Your task to perform on an android device: turn off priority inbox in the gmail app Image 0: 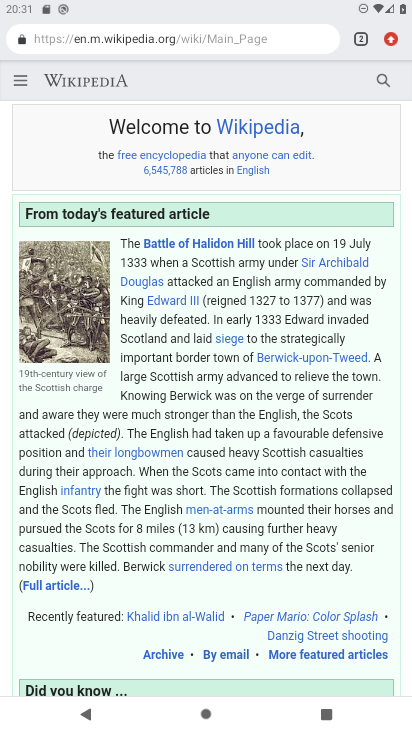
Step 0: press home button
Your task to perform on an android device: turn off priority inbox in the gmail app Image 1: 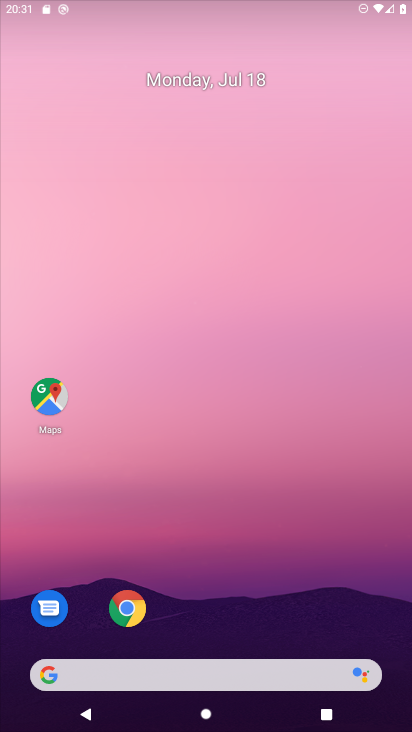
Step 1: drag from (205, 630) to (233, 127)
Your task to perform on an android device: turn off priority inbox in the gmail app Image 2: 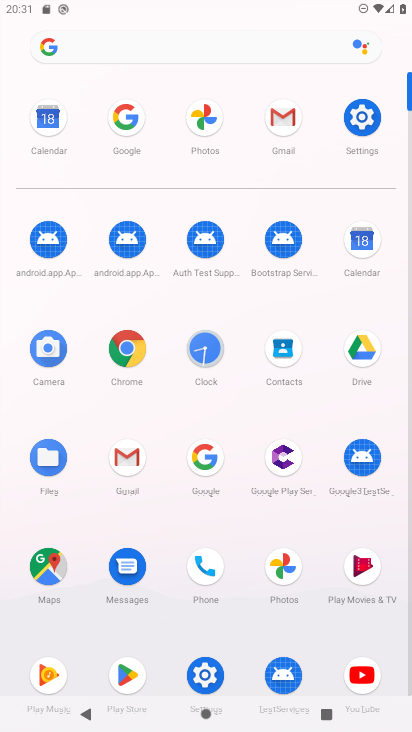
Step 2: click (127, 457)
Your task to perform on an android device: turn off priority inbox in the gmail app Image 3: 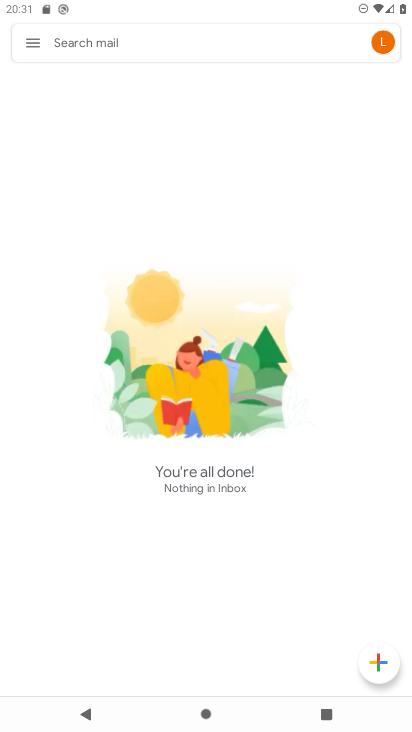
Step 3: click (34, 43)
Your task to perform on an android device: turn off priority inbox in the gmail app Image 4: 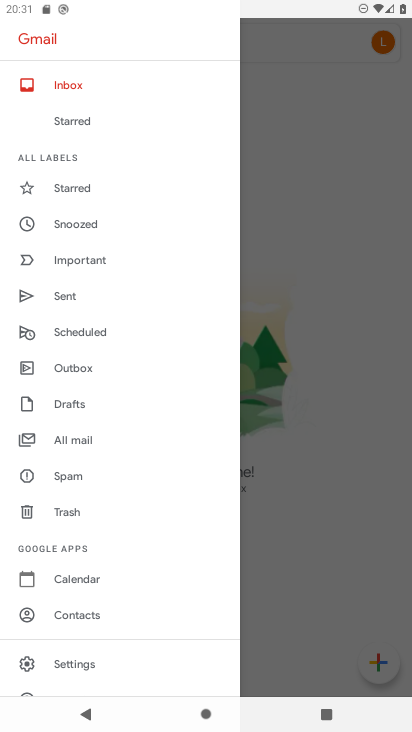
Step 4: click (72, 655)
Your task to perform on an android device: turn off priority inbox in the gmail app Image 5: 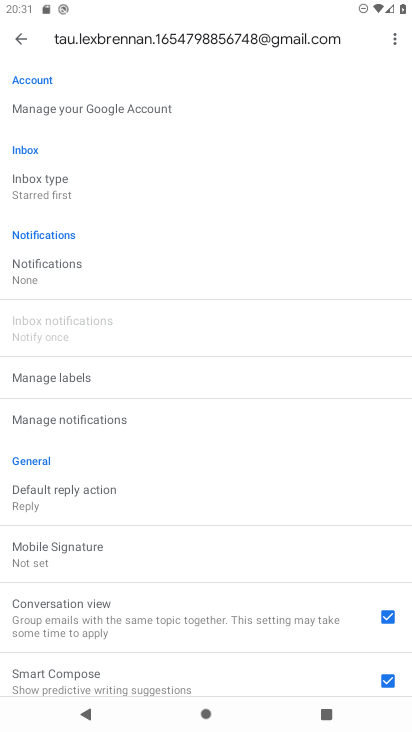
Step 5: drag from (202, 616) to (206, 723)
Your task to perform on an android device: turn off priority inbox in the gmail app Image 6: 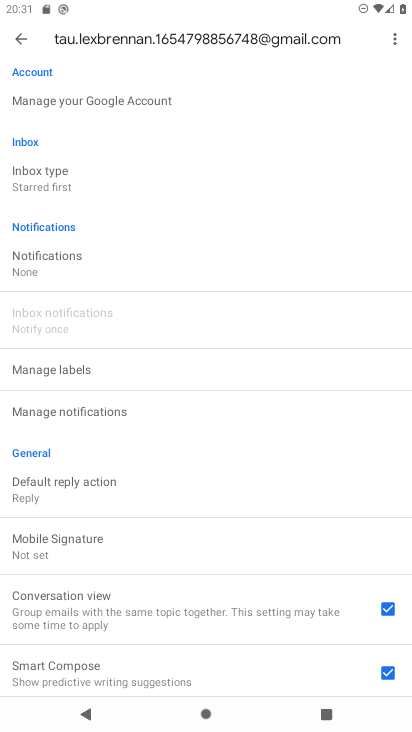
Step 6: click (58, 181)
Your task to perform on an android device: turn off priority inbox in the gmail app Image 7: 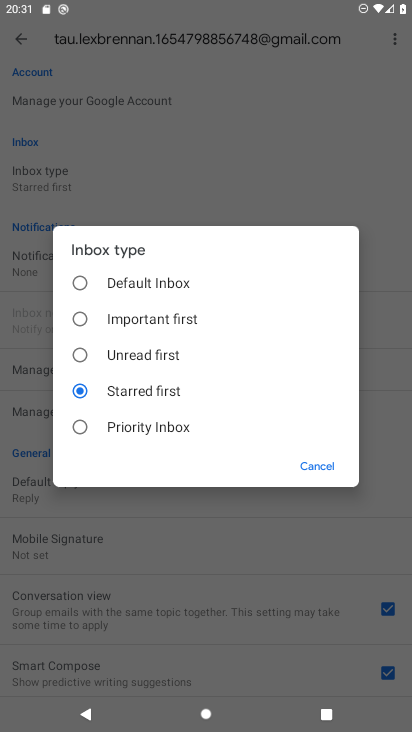
Step 7: task complete